Your task to perform on an android device: Open maps Image 0: 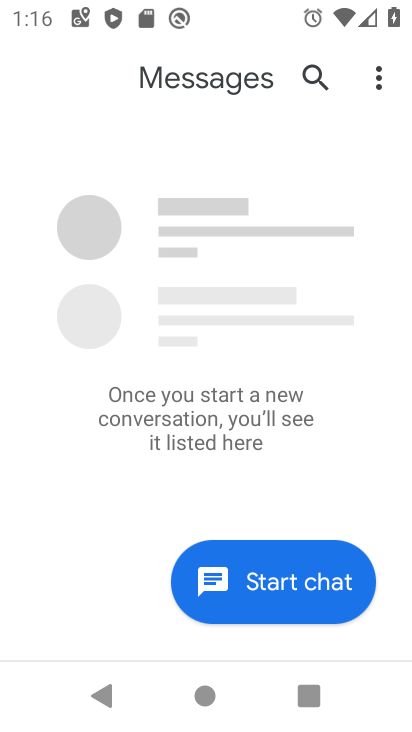
Step 0: press home button
Your task to perform on an android device: Open maps Image 1: 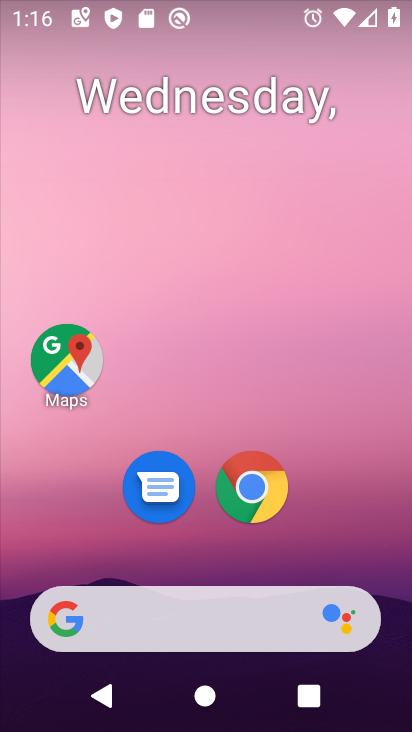
Step 1: click (71, 349)
Your task to perform on an android device: Open maps Image 2: 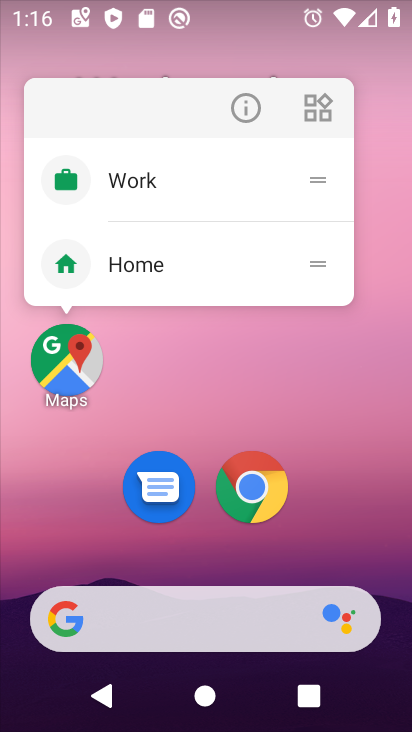
Step 2: click (69, 350)
Your task to perform on an android device: Open maps Image 3: 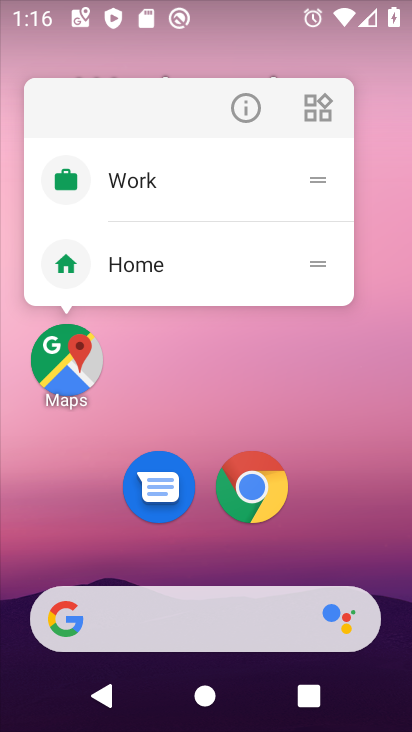
Step 3: click (59, 362)
Your task to perform on an android device: Open maps Image 4: 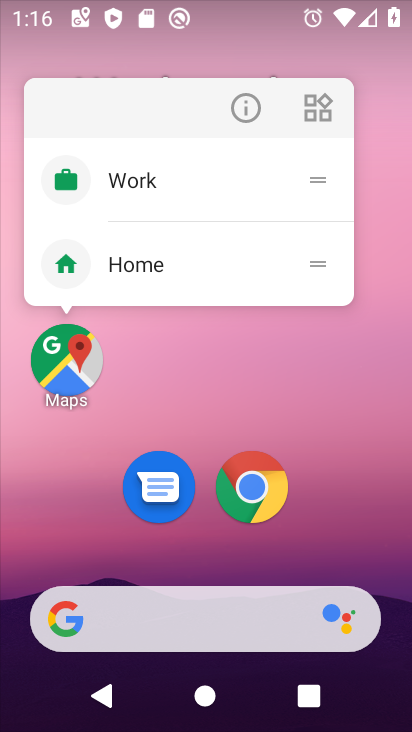
Step 4: click (59, 362)
Your task to perform on an android device: Open maps Image 5: 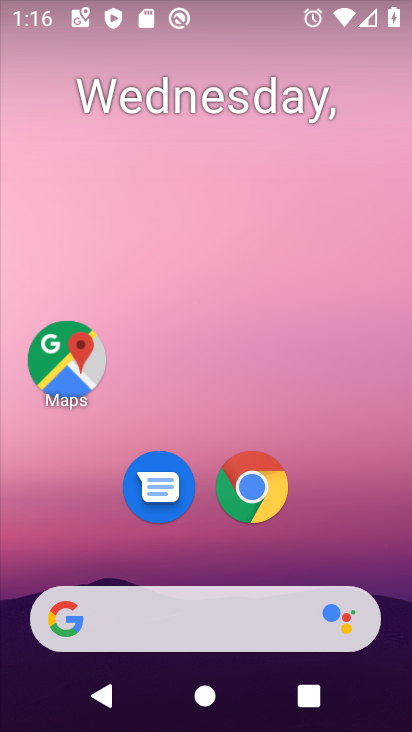
Step 5: click (59, 362)
Your task to perform on an android device: Open maps Image 6: 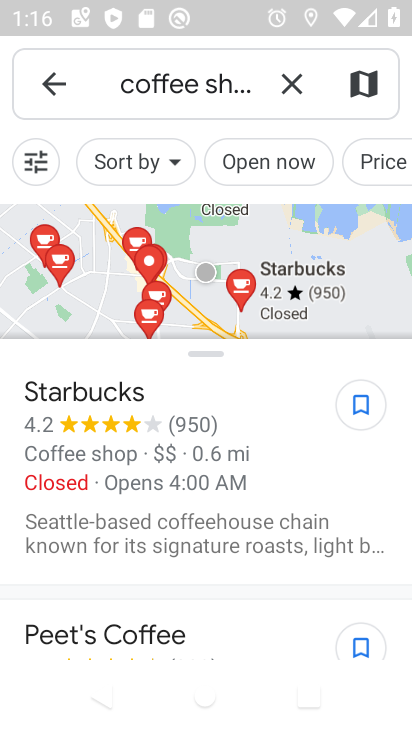
Step 6: task complete